Your task to perform on an android device: Open display settings Image 0: 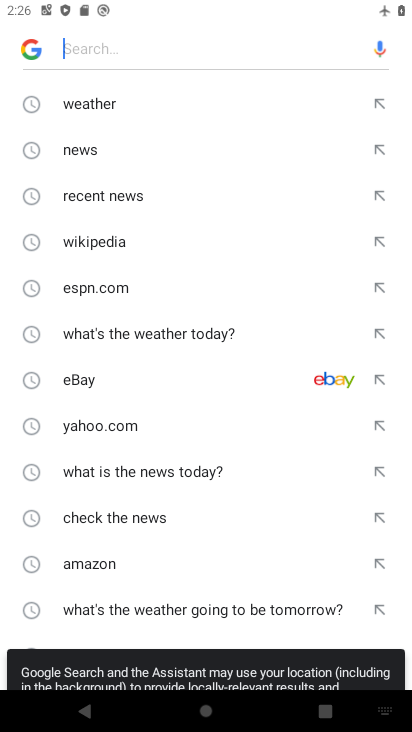
Step 0: press home button
Your task to perform on an android device: Open display settings Image 1: 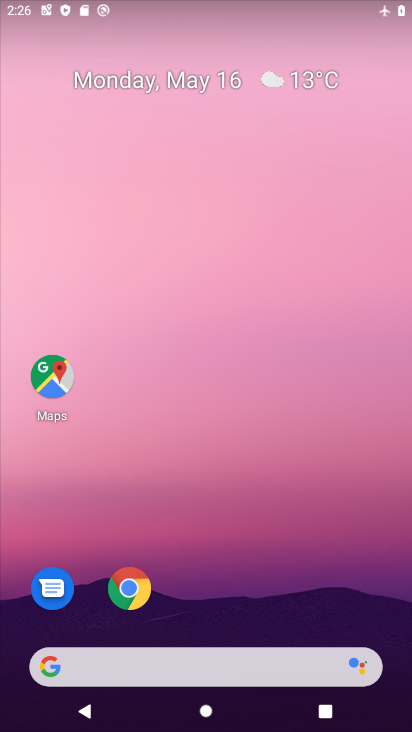
Step 1: drag from (279, 620) to (280, 22)
Your task to perform on an android device: Open display settings Image 2: 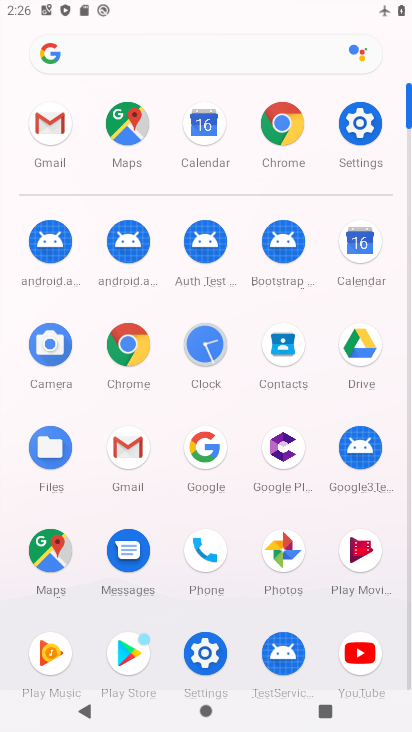
Step 2: click (362, 139)
Your task to perform on an android device: Open display settings Image 3: 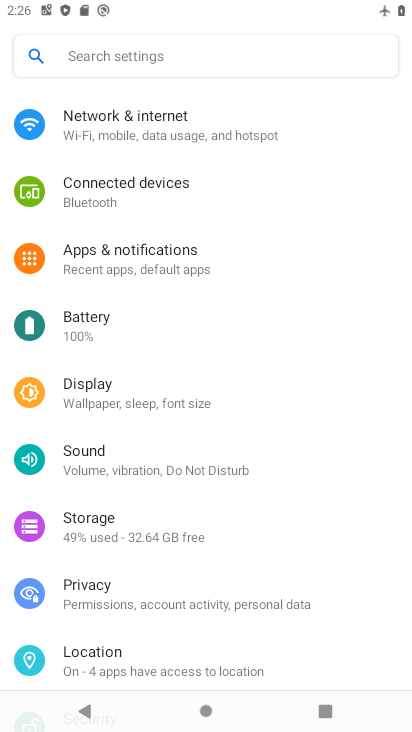
Step 3: drag from (204, 170) to (217, 628)
Your task to perform on an android device: Open display settings Image 4: 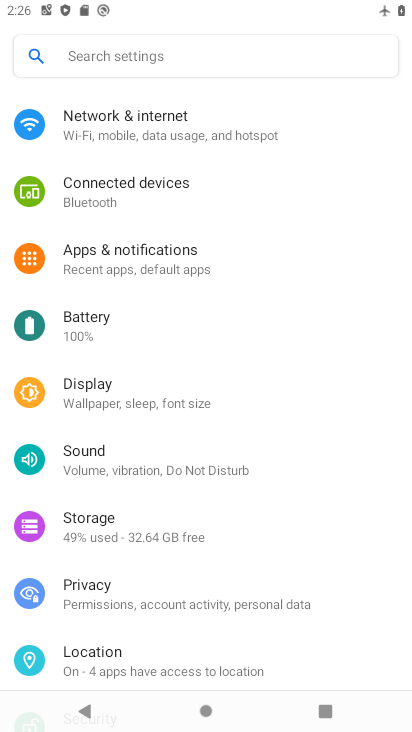
Step 4: click (140, 401)
Your task to perform on an android device: Open display settings Image 5: 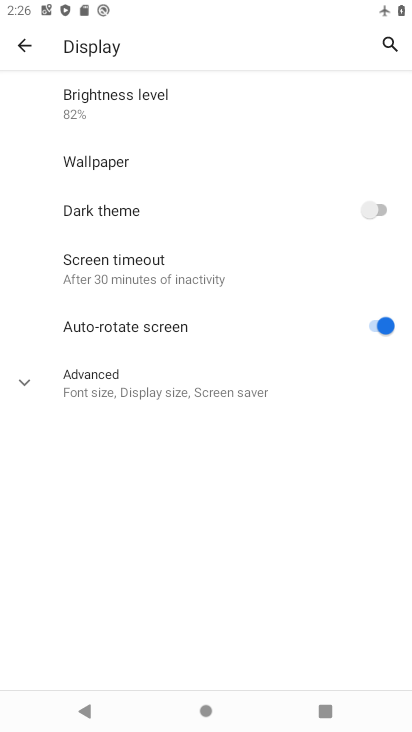
Step 5: task complete